Your task to perform on an android device: see sites visited before in the chrome app Image 0: 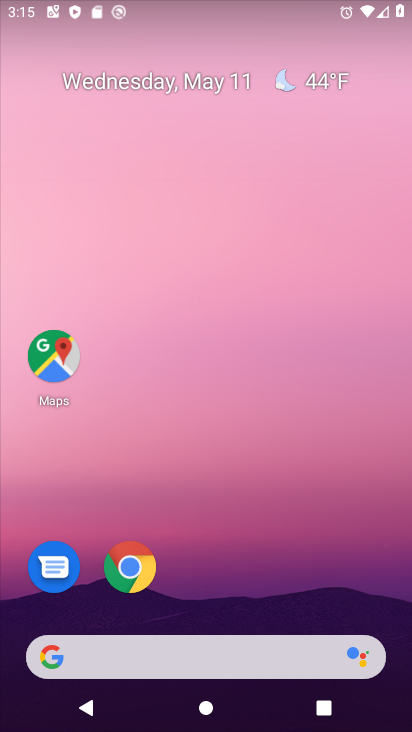
Step 0: drag from (230, 539) to (222, 36)
Your task to perform on an android device: see sites visited before in the chrome app Image 1: 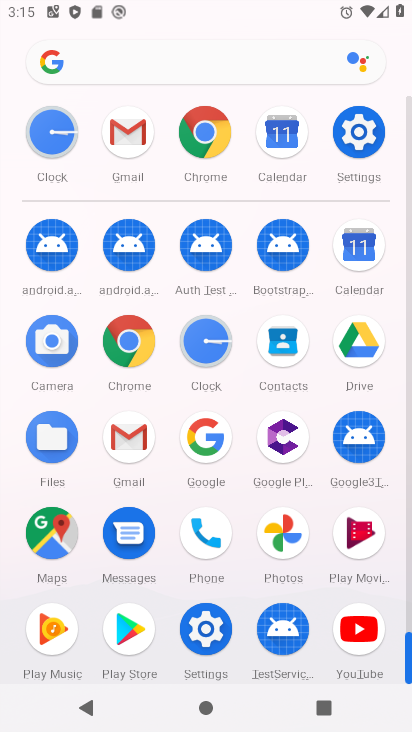
Step 1: drag from (5, 509) to (10, 147)
Your task to perform on an android device: see sites visited before in the chrome app Image 2: 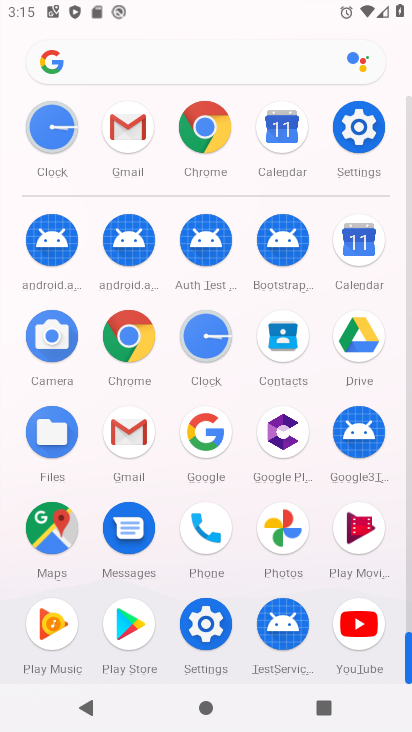
Step 2: click (128, 331)
Your task to perform on an android device: see sites visited before in the chrome app Image 3: 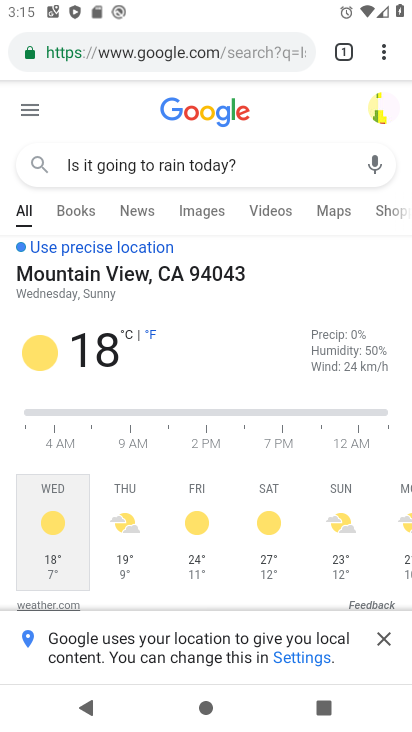
Step 3: task complete